Your task to perform on an android device: Open Chrome and go to the settings page Image 0: 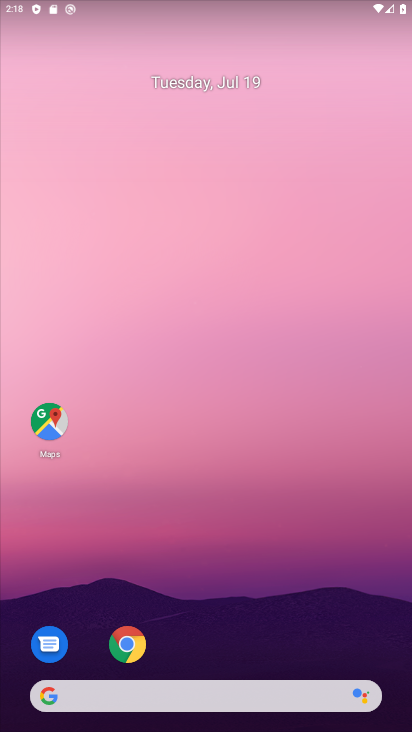
Step 0: click (125, 649)
Your task to perform on an android device: Open Chrome and go to the settings page Image 1: 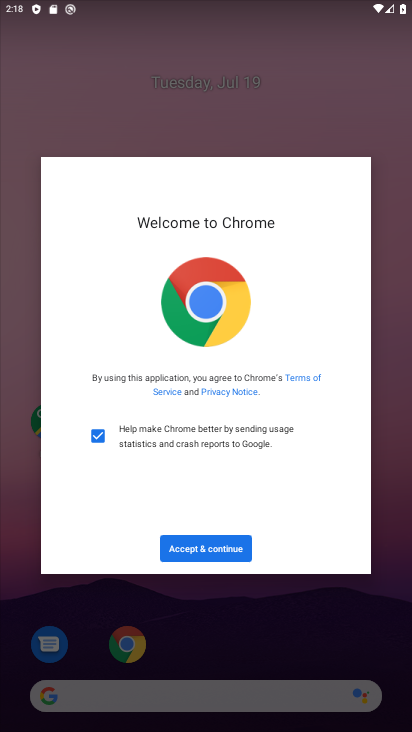
Step 1: click (241, 552)
Your task to perform on an android device: Open Chrome and go to the settings page Image 2: 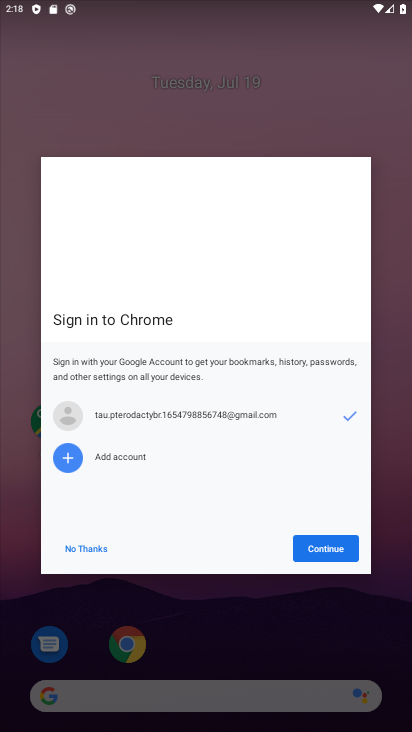
Step 2: click (313, 538)
Your task to perform on an android device: Open Chrome and go to the settings page Image 3: 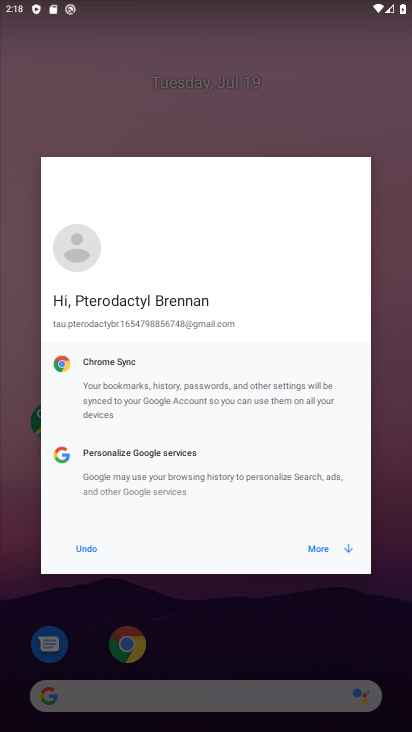
Step 3: click (313, 539)
Your task to perform on an android device: Open Chrome and go to the settings page Image 4: 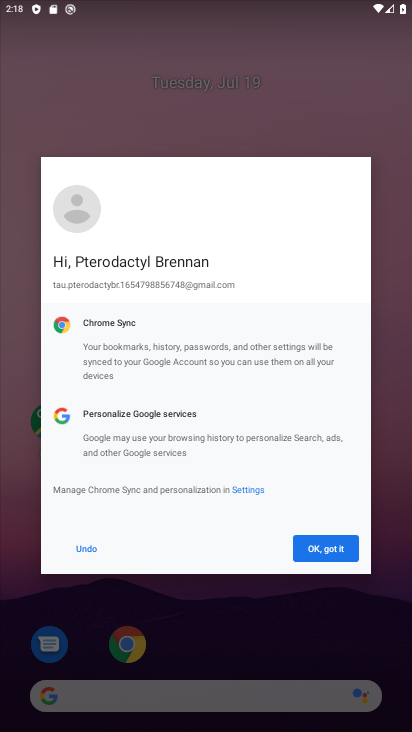
Step 4: click (313, 539)
Your task to perform on an android device: Open Chrome and go to the settings page Image 5: 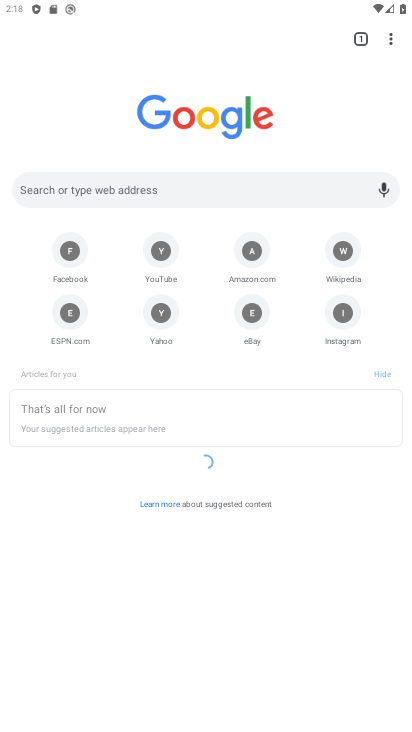
Step 5: click (394, 32)
Your task to perform on an android device: Open Chrome and go to the settings page Image 6: 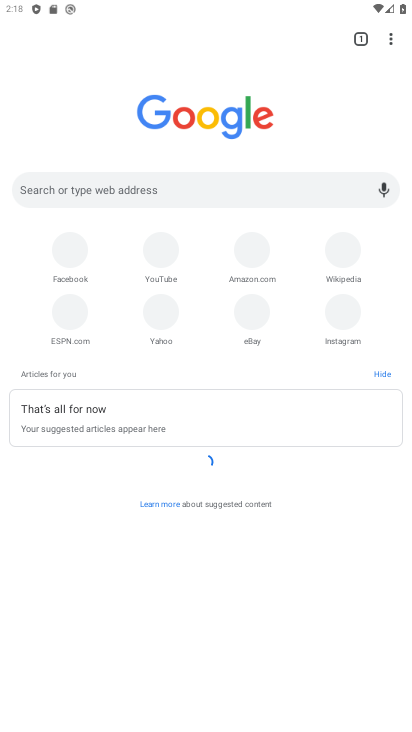
Step 6: click (391, 39)
Your task to perform on an android device: Open Chrome and go to the settings page Image 7: 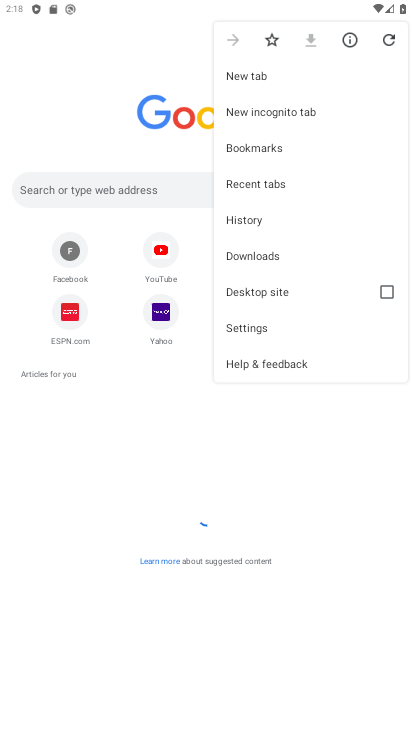
Step 7: click (257, 326)
Your task to perform on an android device: Open Chrome and go to the settings page Image 8: 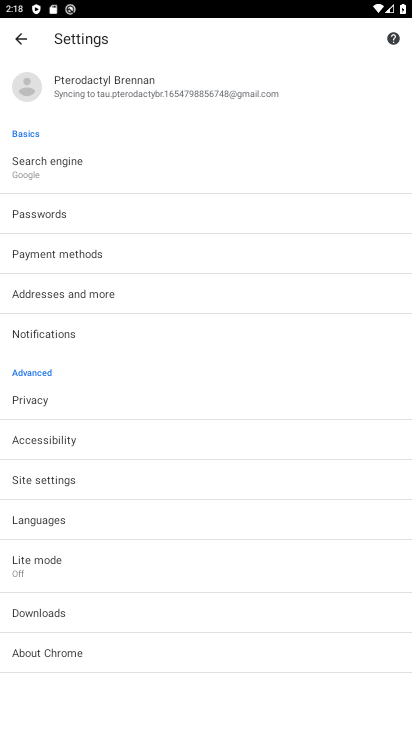
Step 8: task complete